Your task to perform on an android device: turn notification dots on Image 0: 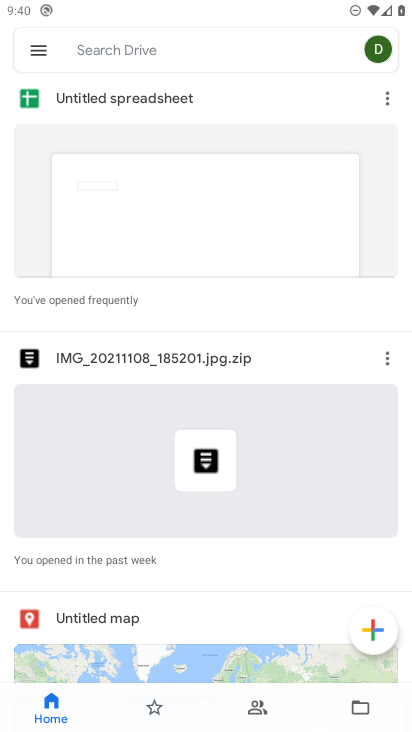
Step 0: press home button
Your task to perform on an android device: turn notification dots on Image 1: 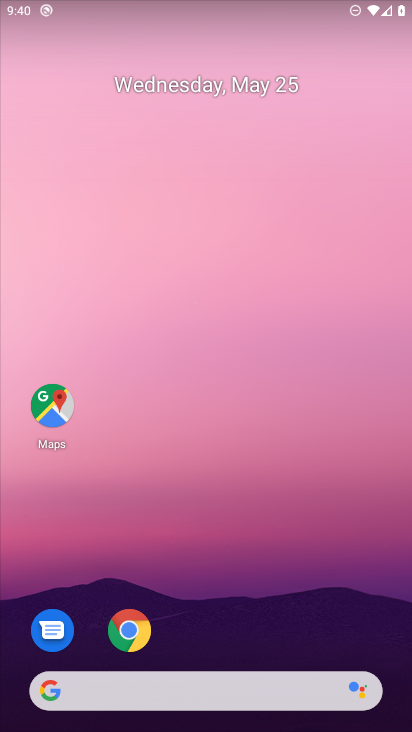
Step 1: click (222, 669)
Your task to perform on an android device: turn notification dots on Image 2: 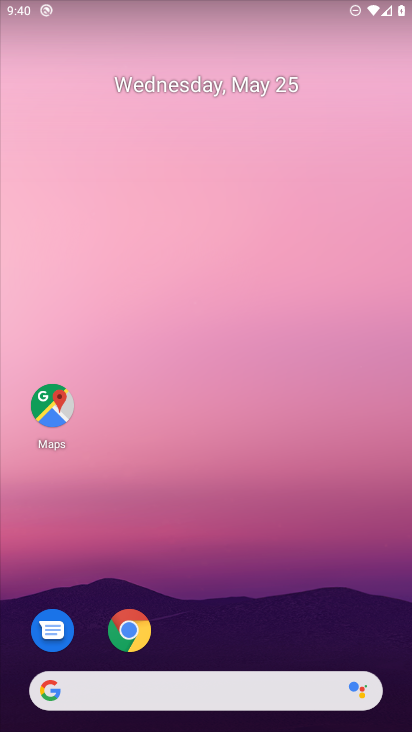
Step 2: drag from (222, 669) to (190, 121)
Your task to perform on an android device: turn notification dots on Image 3: 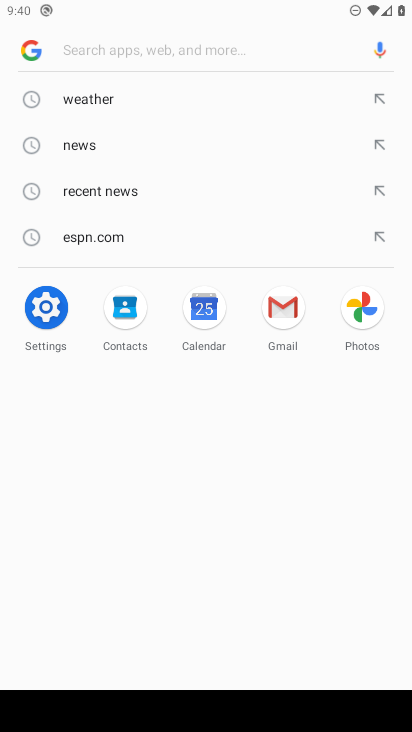
Step 3: press home button
Your task to perform on an android device: turn notification dots on Image 4: 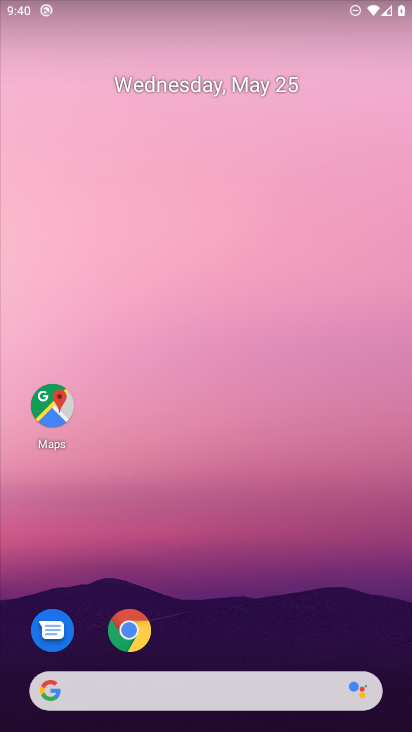
Step 4: drag from (188, 665) to (174, 116)
Your task to perform on an android device: turn notification dots on Image 5: 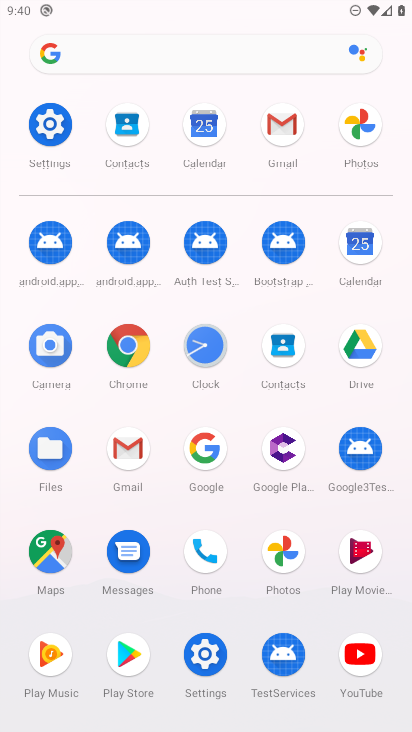
Step 5: click (59, 131)
Your task to perform on an android device: turn notification dots on Image 6: 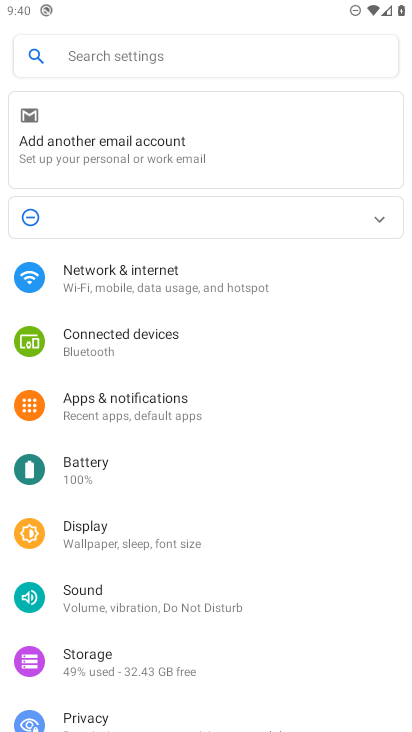
Step 6: click (116, 402)
Your task to perform on an android device: turn notification dots on Image 7: 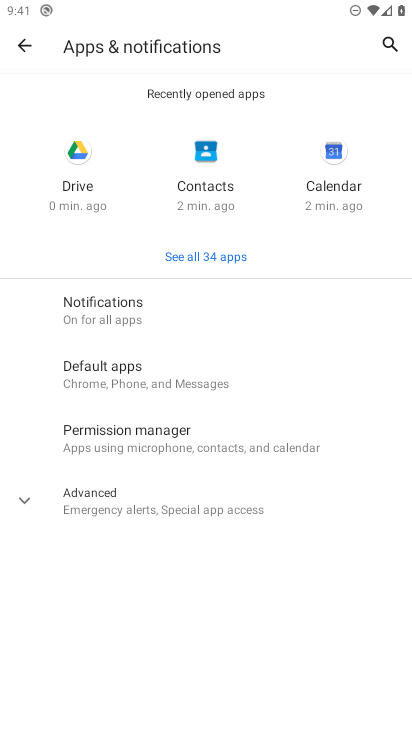
Step 7: click (102, 505)
Your task to perform on an android device: turn notification dots on Image 8: 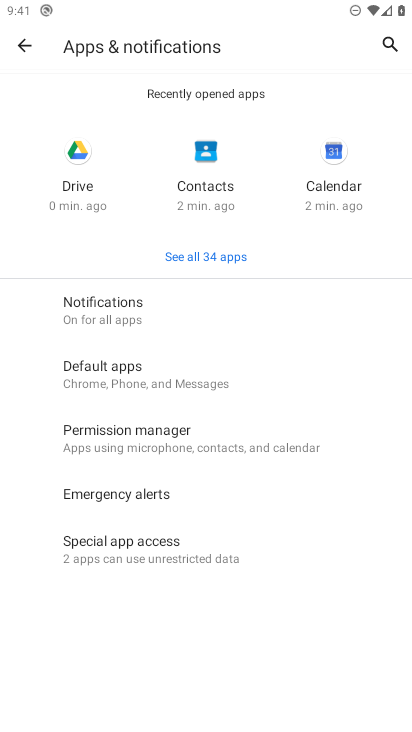
Step 8: click (104, 311)
Your task to perform on an android device: turn notification dots on Image 9: 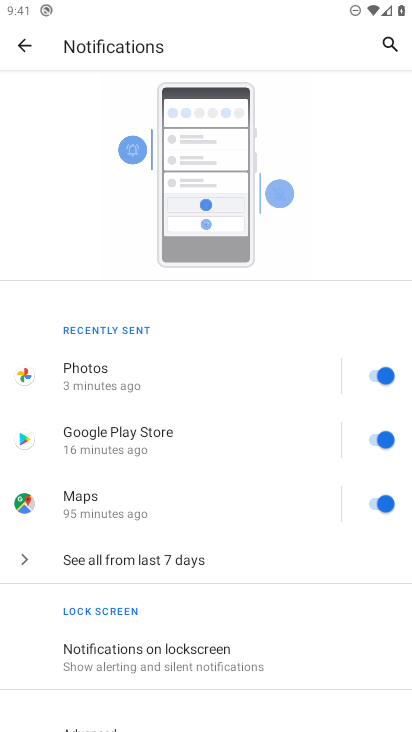
Step 9: drag from (151, 631) to (137, 195)
Your task to perform on an android device: turn notification dots on Image 10: 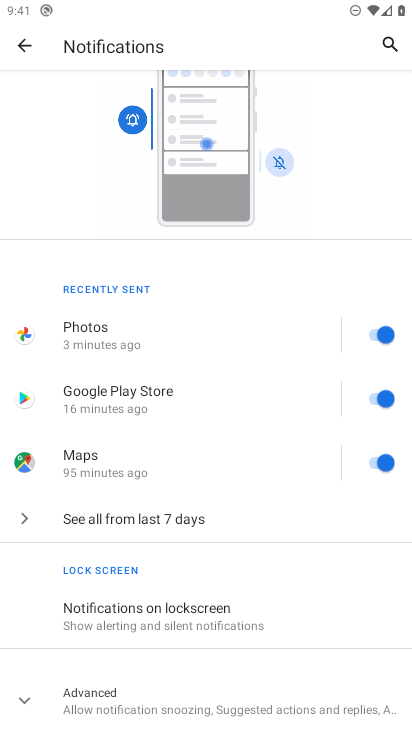
Step 10: click (120, 706)
Your task to perform on an android device: turn notification dots on Image 11: 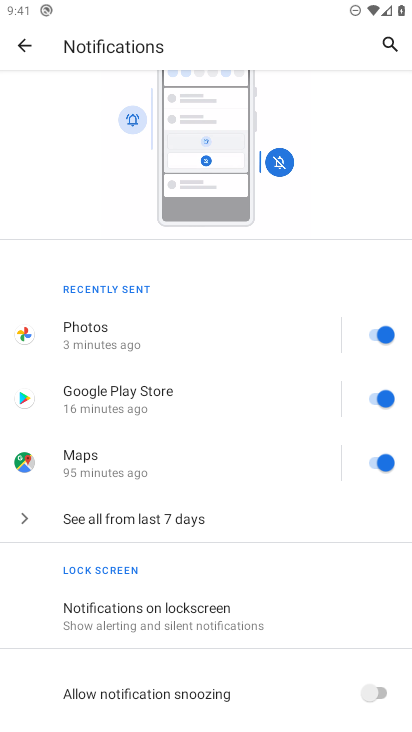
Step 11: task complete